Your task to perform on an android device: Go to battery settings Image 0: 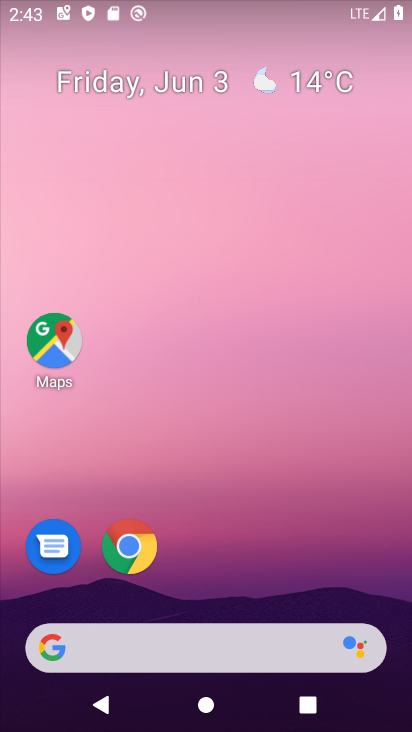
Step 0: drag from (271, 562) to (266, 0)
Your task to perform on an android device: Go to battery settings Image 1: 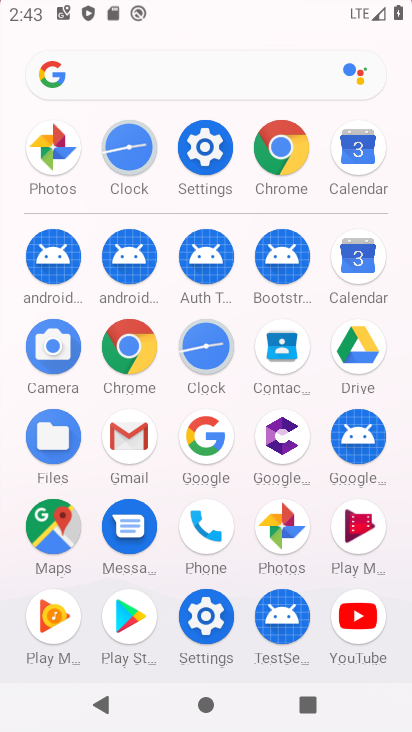
Step 1: click (220, 178)
Your task to perform on an android device: Go to battery settings Image 2: 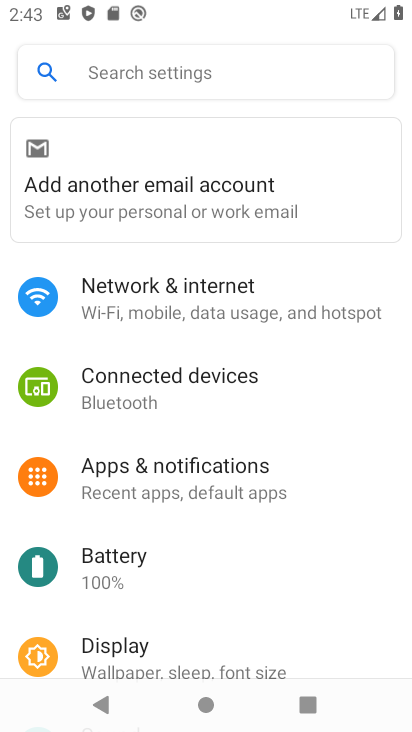
Step 2: click (192, 595)
Your task to perform on an android device: Go to battery settings Image 3: 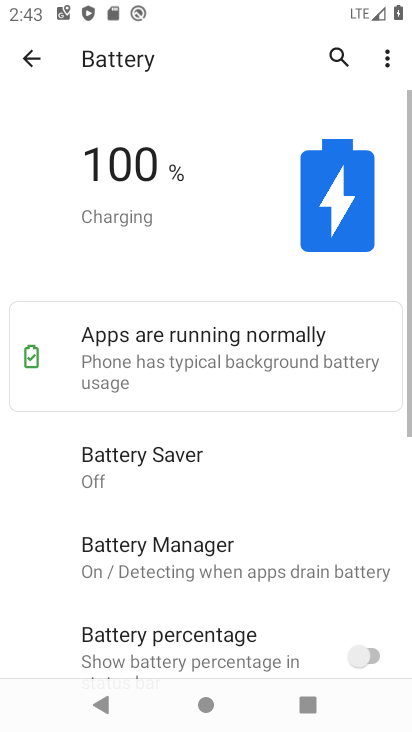
Step 3: task complete